Your task to perform on an android device: read, delete, or share a saved page in the chrome app Image 0: 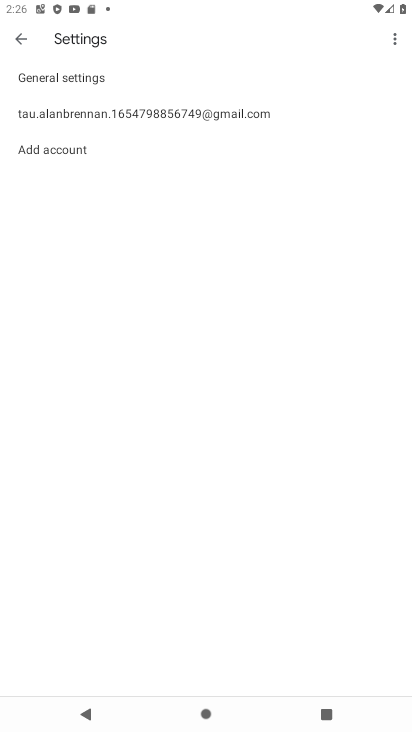
Step 0: press home button
Your task to perform on an android device: read, delete, or share a saved page in the chrome app Image 1: 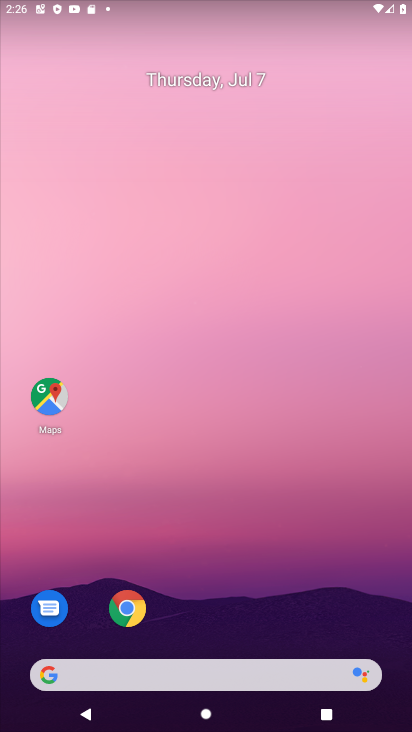
Step 1: click (127, 607)
Your task to perform on an android device: read, delete, or share a saved page in the chrome app Image 2: 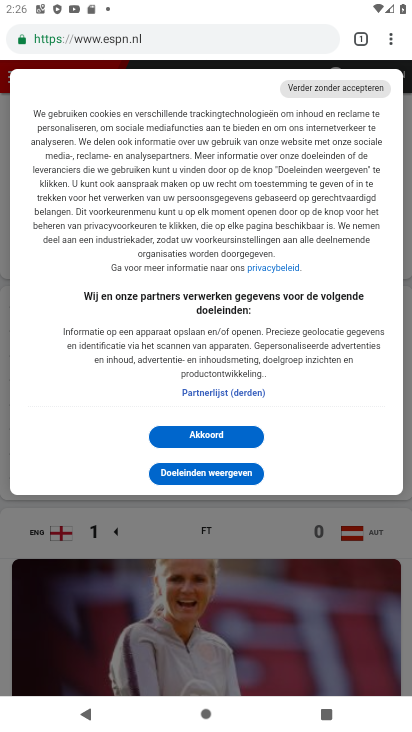
Step 2: click (391, 43)
Your task to perform on an android device: read, delete, or share a saved page in the chrome app Image 3: 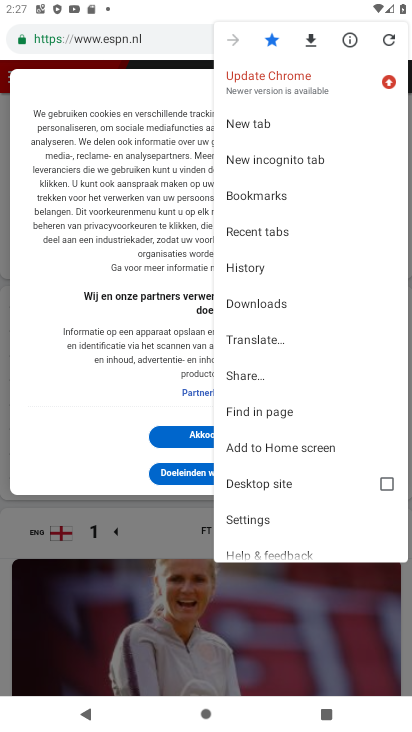
Step 3: click (255, 298)
Your task to perform on an android device: read, delete, or share a saved page in the chrome app Image 4: 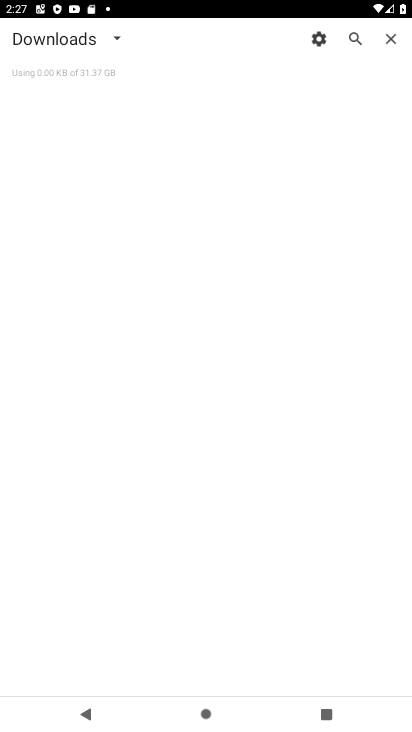
Step 4: click (112, 39)
Your task to perform on an android device: read, delete, or share a saved page in the chrome app Image 5: 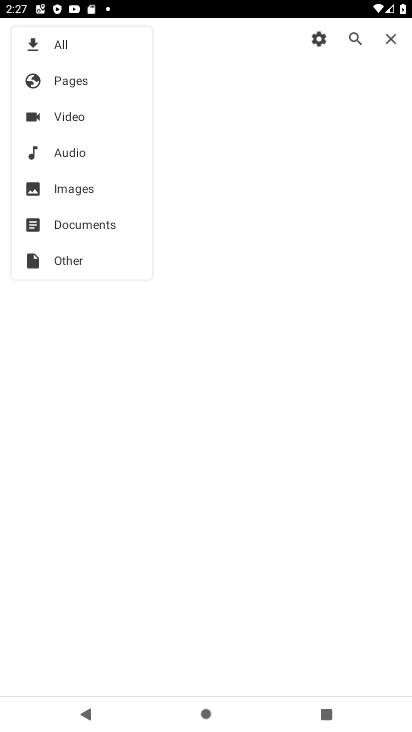
Step 5: click (66, 79)
Your task to perform on an android device: read, delete, or share a saved page in the chrome app Image 6: 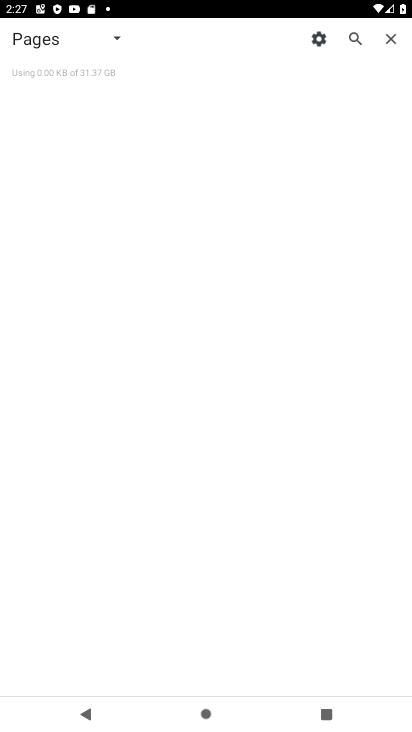
Step 6: task complete